Your task to perform on an android device: remove spam from my inbox in the gmail app Image 0: 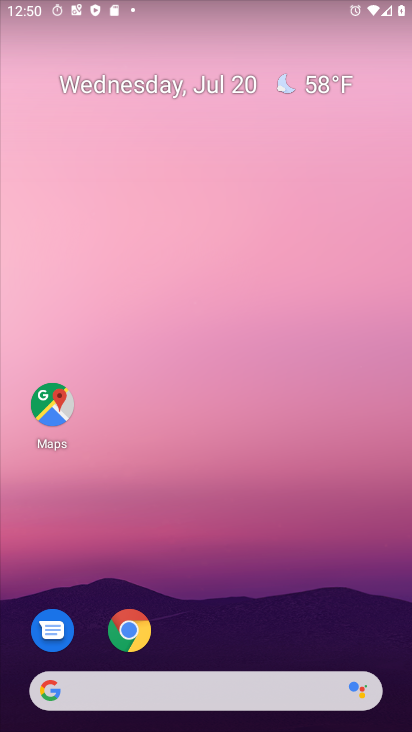
Step 0: press home button
Your task to perform on an android device: remove spam from my inbox in the gmail app Image 1: 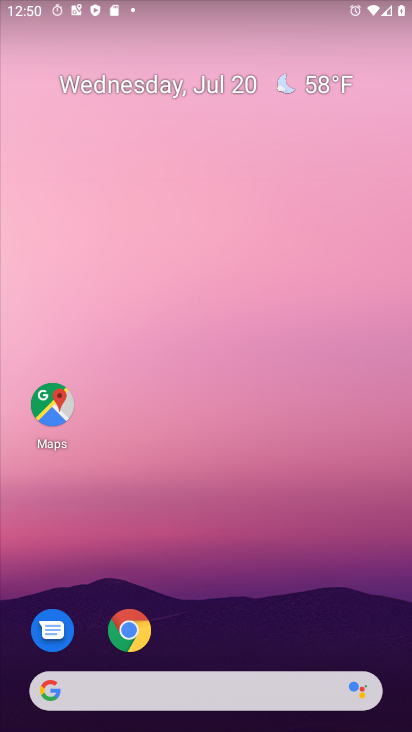
Step 1: drag from (199, 695) to (291, 210)
Your task to perform on an android device: remove spam from my inbox in the gmail app Image 2: 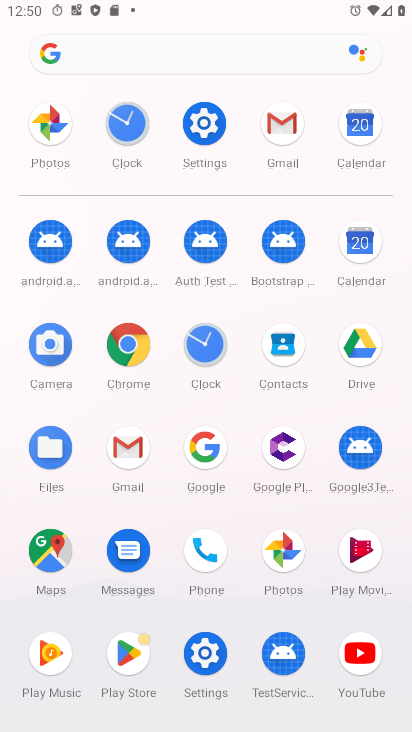
Step 2: click (288, 129)
Your task to perform on an android device: remove spam from my inbox in the gmail app Image 3: 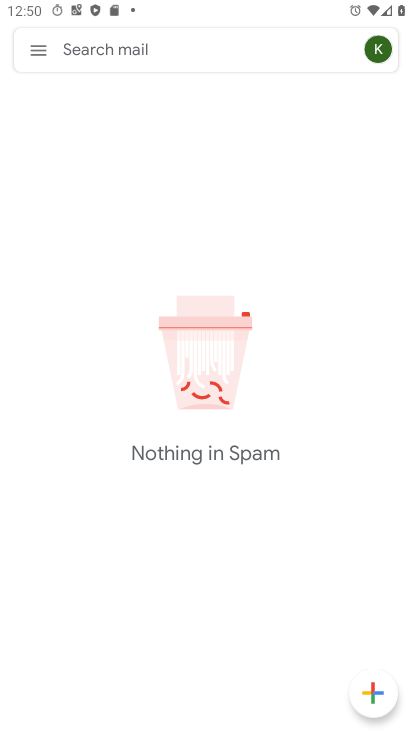
Step 3: click (33, 45)
Your task to perform on an android device: remove spam from my inbox in the gmail app Image 4: 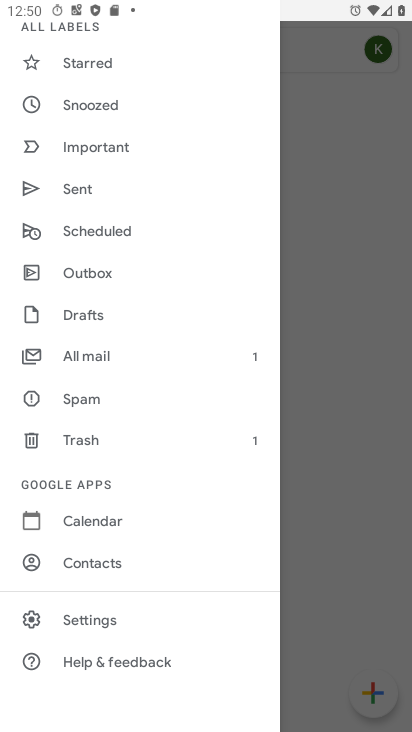
Step 4: click (101, 394)
Your task to perform on an android device: remove spam from my inbox in the gmail app Image 5: 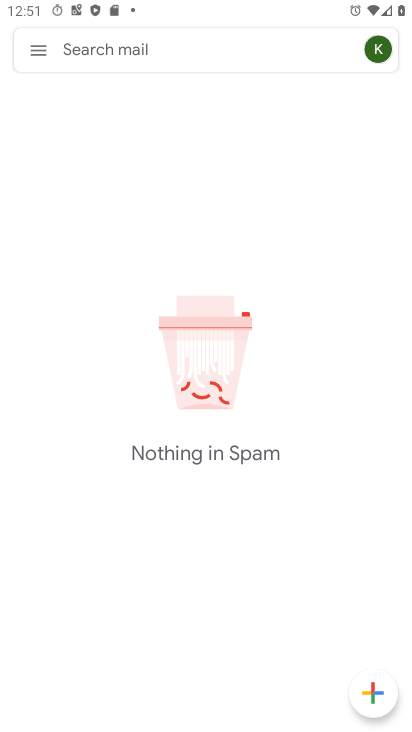
Step 5: task complete